Your task to perform on an android device: turn on priority inbox in the gmail app Image 0: 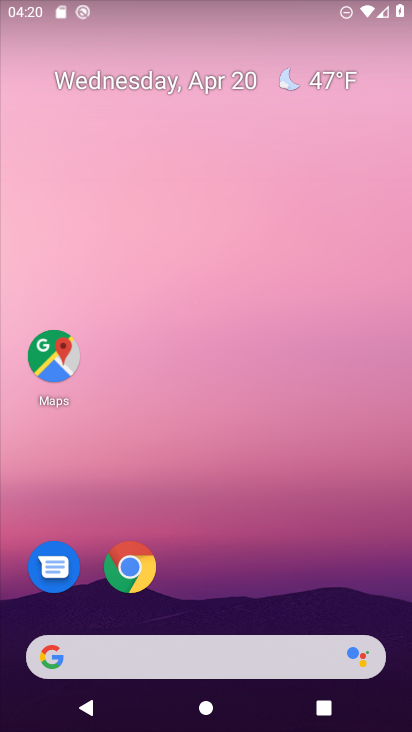
Step 0: drag from (208, 623) to (295, 84)
Your task to perform on an android device: turn on priority inbox in the gmail app Image 1: 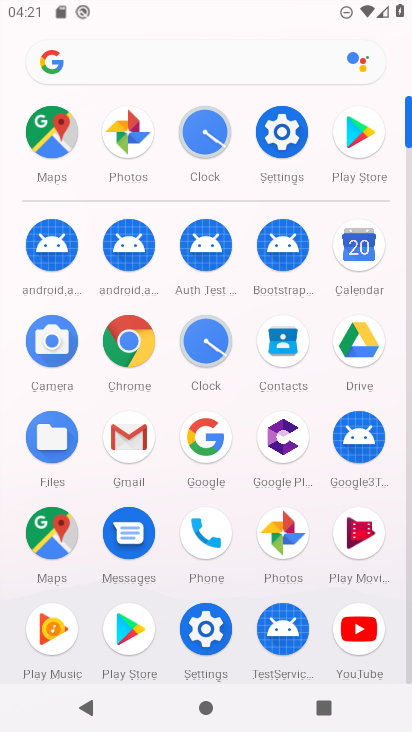
Step 1: click (136, 422)
Your task to perform on an android device: turn on priority inbox in the gmail app Image 2: 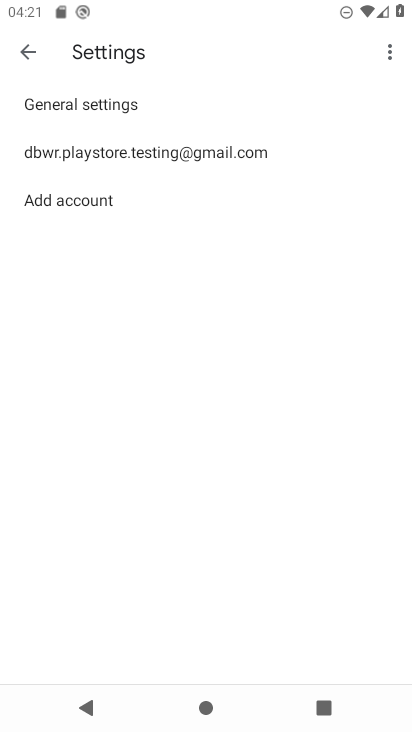
Step 2: click (226, 151)
Your task to perform on an android device: turn on priority inbox in the gmail app Image 3: 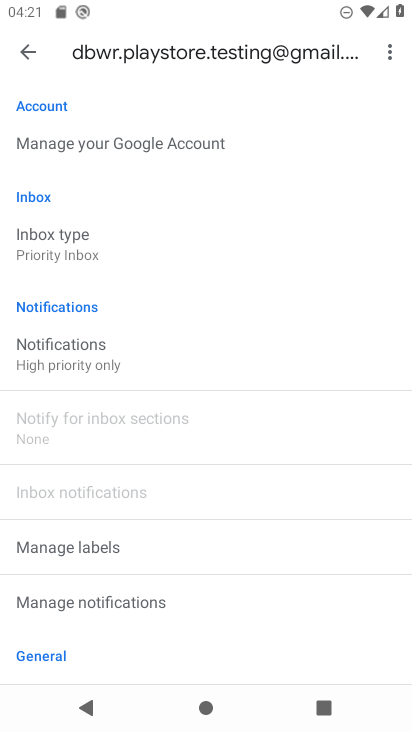
Step 3: click (181, 240)
Your task to perform on an android device: turn on priority inbox in the gmail app Image 4: 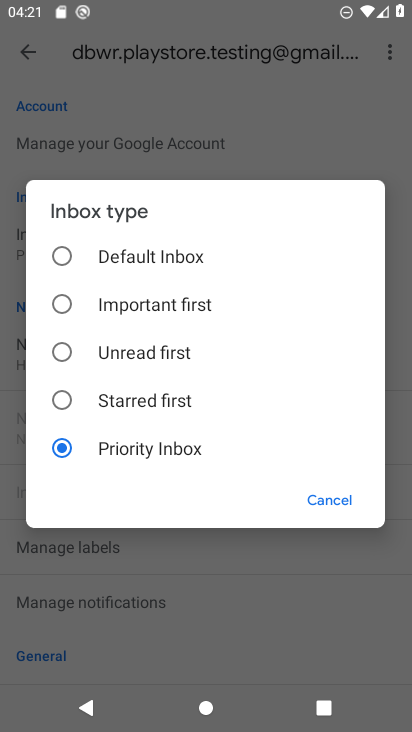
Step 4: task complete